Your task to perform on an android device: delete the emails in spam in the gmail app Image 0: 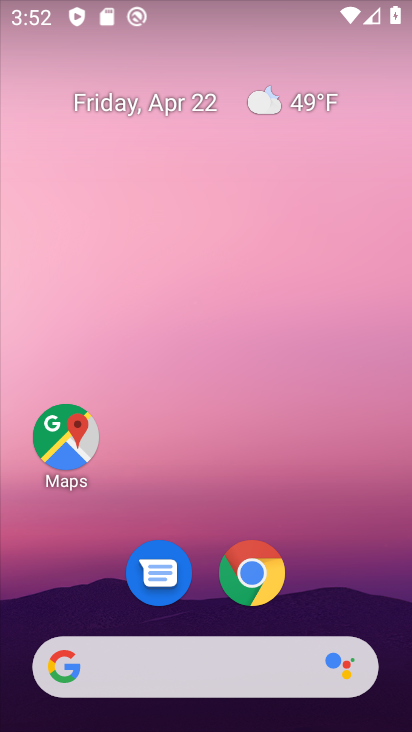
Step 0: drag from (255, 722) to (333, 89)
Your task to perform on an android device: delete the emails in spam in the gmail app Image 1: 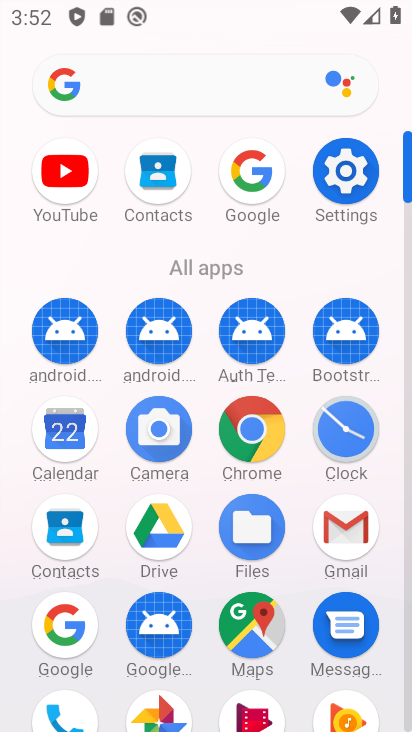
Step 1: drag from (203, 601) to (276, 287)
Your task to perform on an android device: delete the emails in spam in the gmail app Image 2: 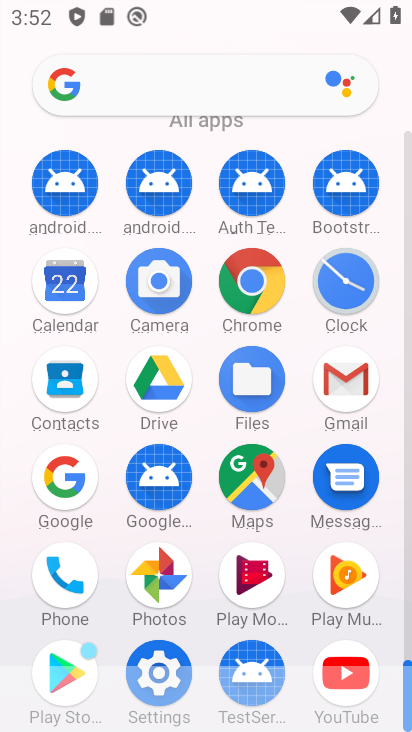
Step 2: drag from (267, 308) to (204, 685)
Your task to perform on an android device: delete the emails in spam in the gmail app Image 3: 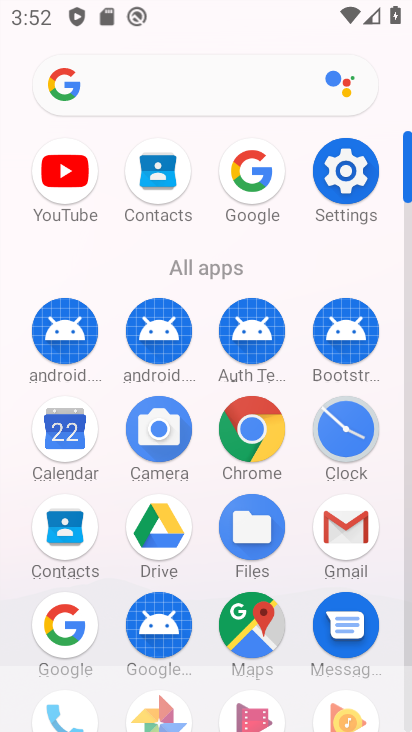
Step 3: click (352, 546)
Your task to perform on an android device: delete the emails in spam in the gmail app Image 4: 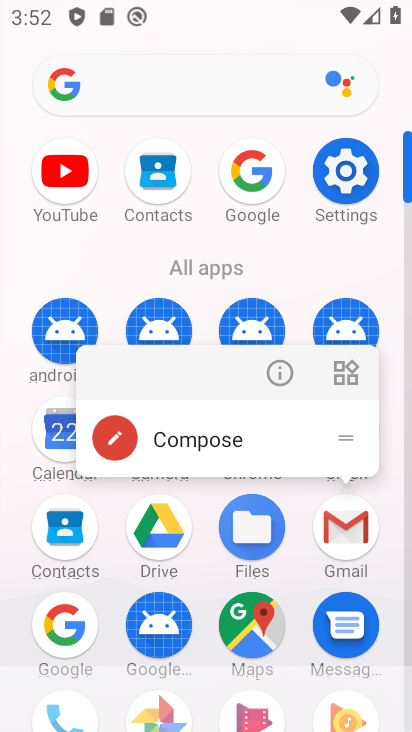
Step 4: click (352, 546)
Your task to perform on an android device: delete the emails in spam in the gmail app Image 5: 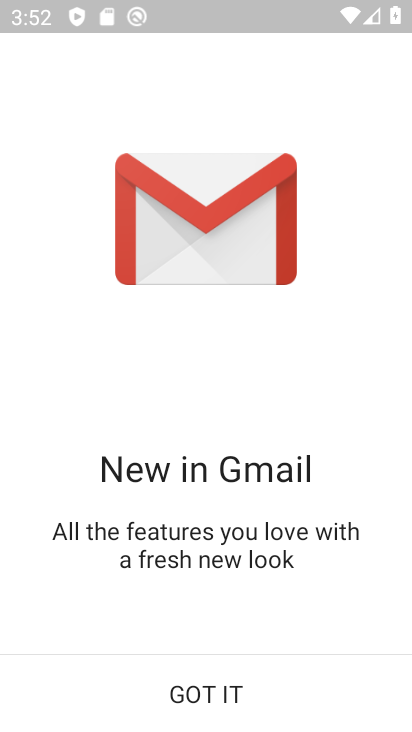
Step 5: click (247, 682)
Your task to perform on an android device: delete the emails in spam in the gmail app Image 6: 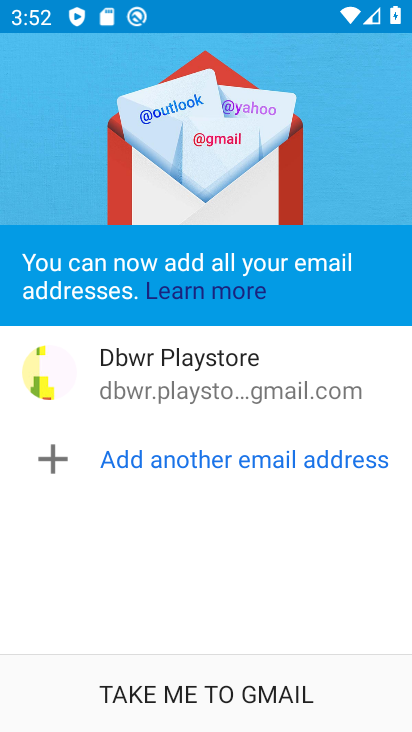
Step 6: click (163, 687)
Your task to perform on an android device: delete the emails in spam in the gmail app Image 7: 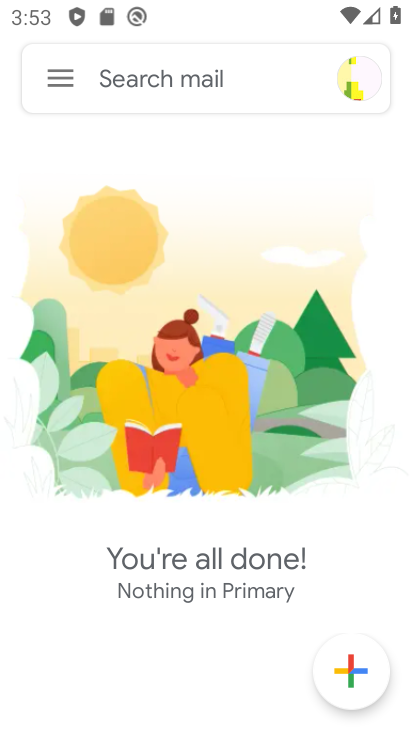
Step 7: click (50, 78)
Your task to perform on an android device: delete the emails in spam in the gmail app Image 8: 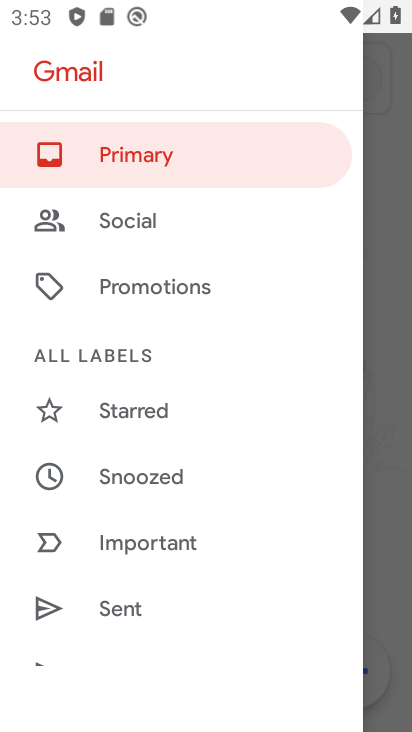
Step 8: drag from (176, 644) to (349, 193)
Your task to perform on an android device: delete the emails in spam in the gmail app Image 9: 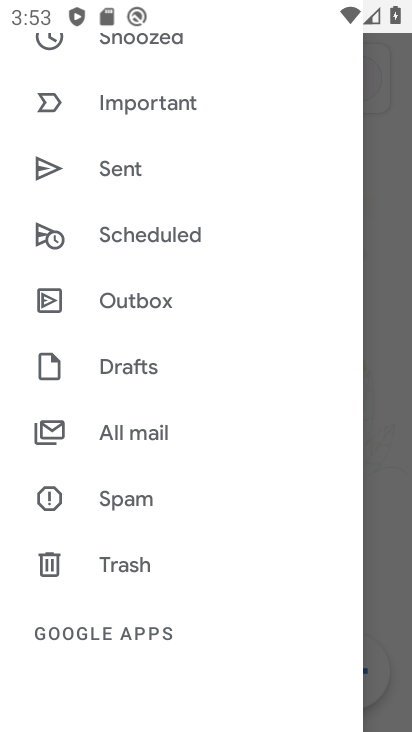
Step 9: click (162, 504)
Your task to perform on an android device: delete the emails in spam in the gmail app Image 10: 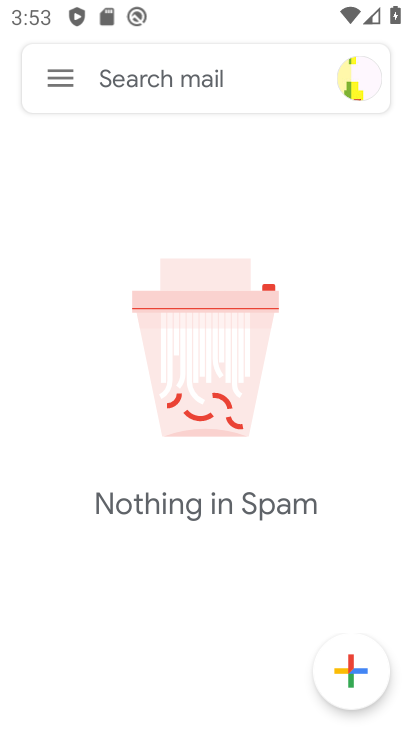
Step 10: task complete